Your task to perform on an android device: change notifications settings Image 0: 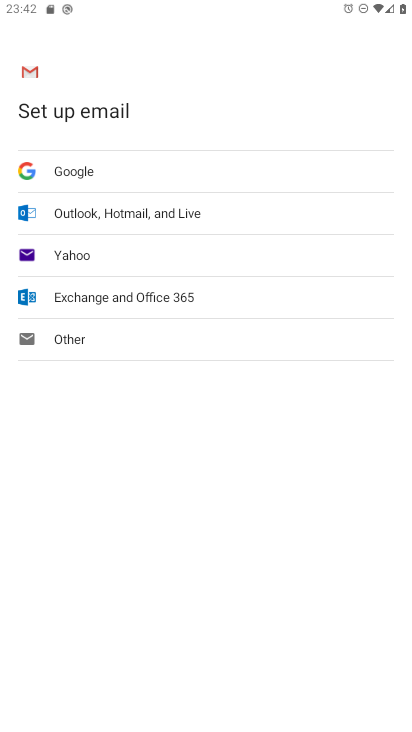
Step 0: press home button
Your task to perform on an android device: change notifications settings Image 1: 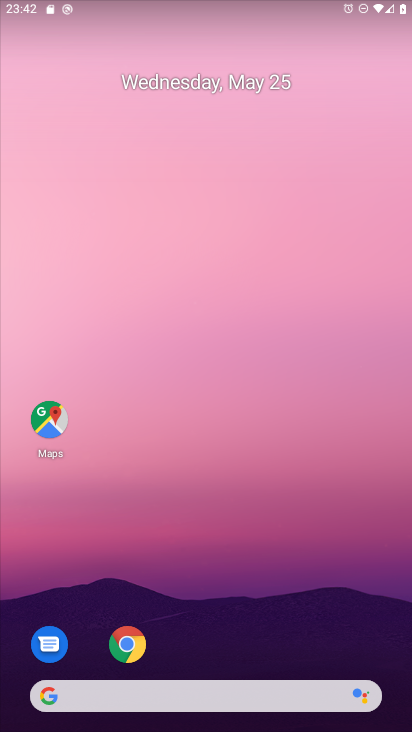
Step 1: drag from (220, 651) to (204, 39)
Your task to perform on an android device: change notifications settings Image 2: 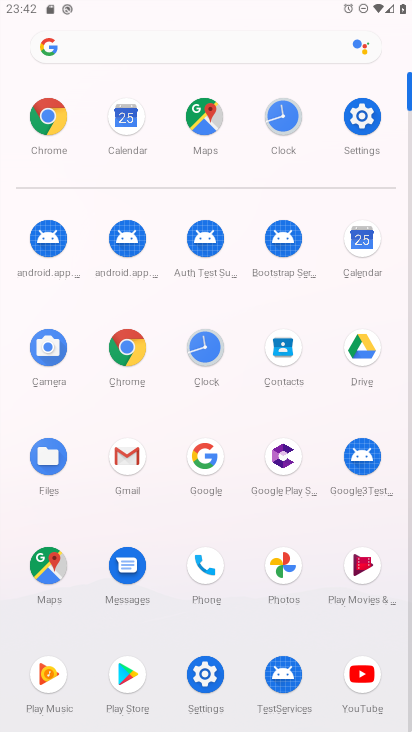
Step 2: click (359, 110)
Your task to perform on an android device: change notifications settings Image 3: 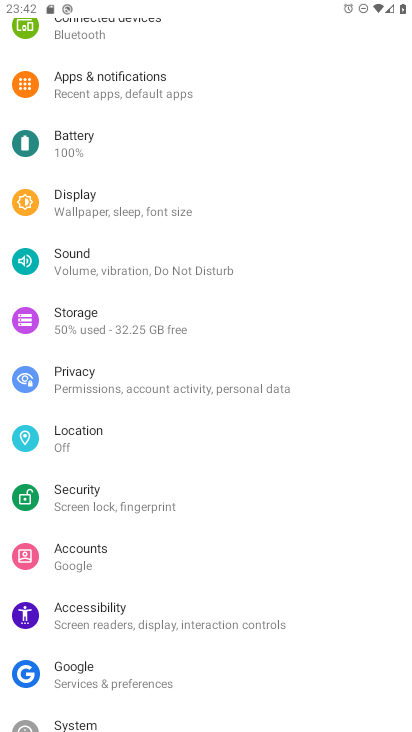
Step 3: click (177, 78)
Your task to perform on an android device: change notifications settings Image 4: 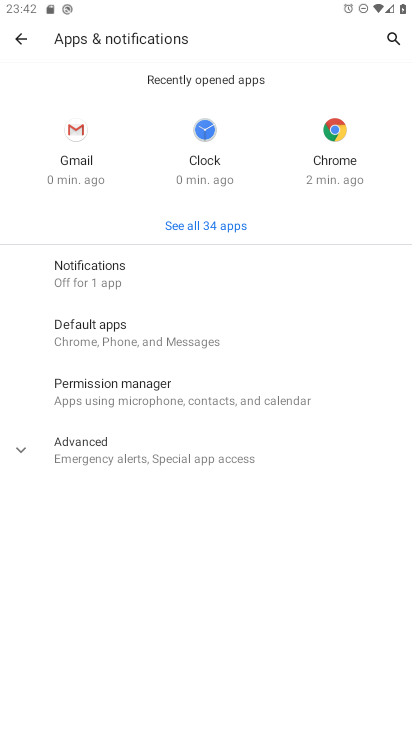
Step 4: click (133, 272)
Your task to perform on an android device: change notifications settings Image 5: 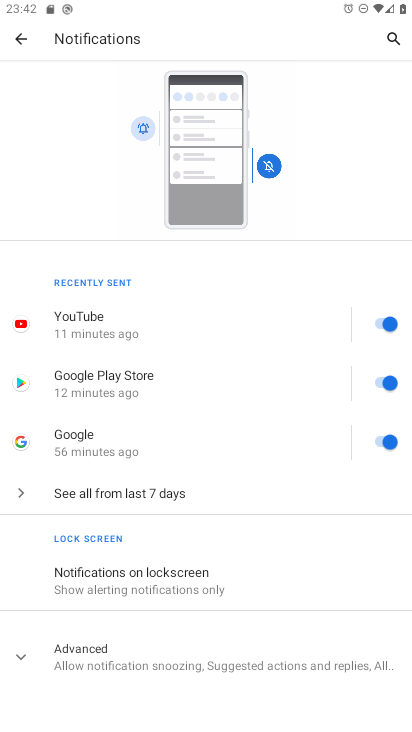
Step 5: drag from (205, 517) to (241, 222)
Your task to perform on an android device: change notifications settings Image 6: 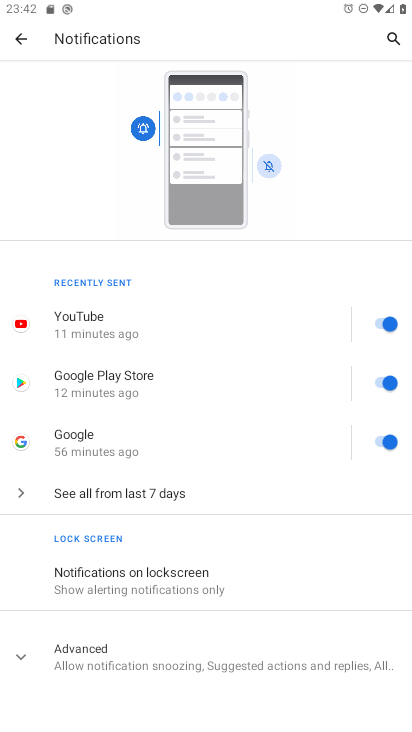
Step 6: click (17, 648)
Your task to perform on an android device: change notifications settings Image 7: 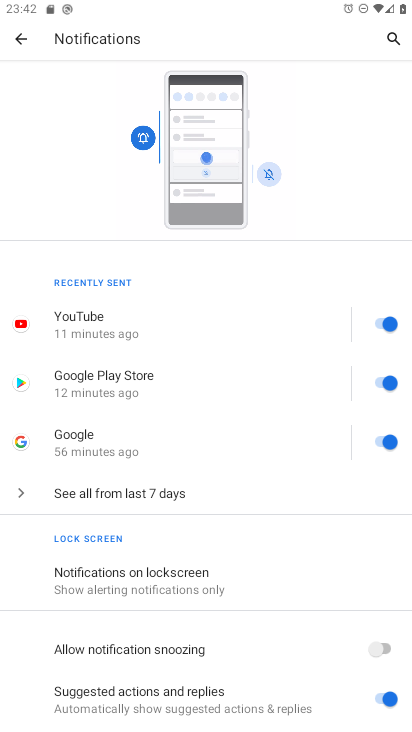
Step 7: task complete